Your task to perform on an android device: add a contact Image 0: 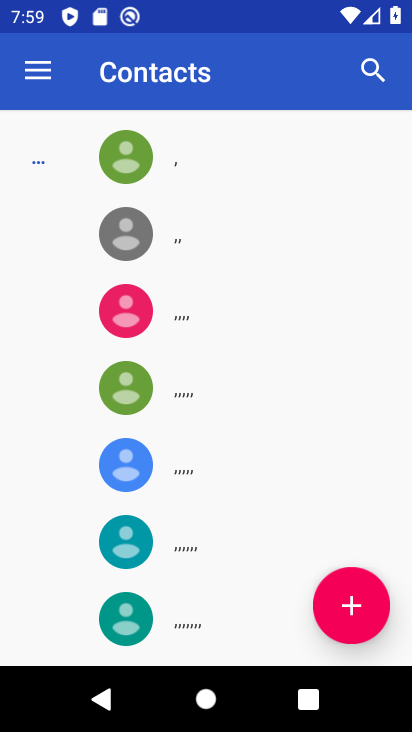
Step 0: press home button
Your task to perform on an android device: add a contact Image 1: 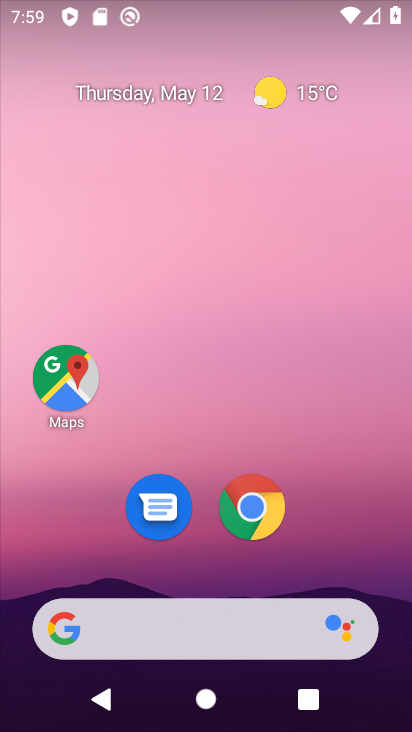
Step 1: drag from (264, 488) to (214, 66)
Your task to perform on an android device: add a contact Image 2: 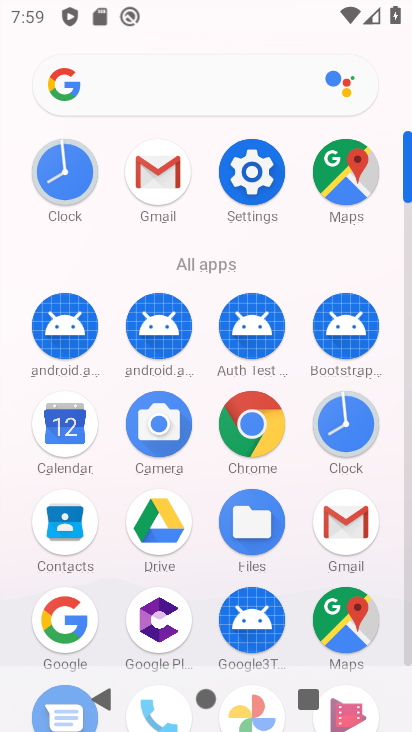
Step 2: click (49, 526)
Your task to perform on an android device: add a contact Image 3: 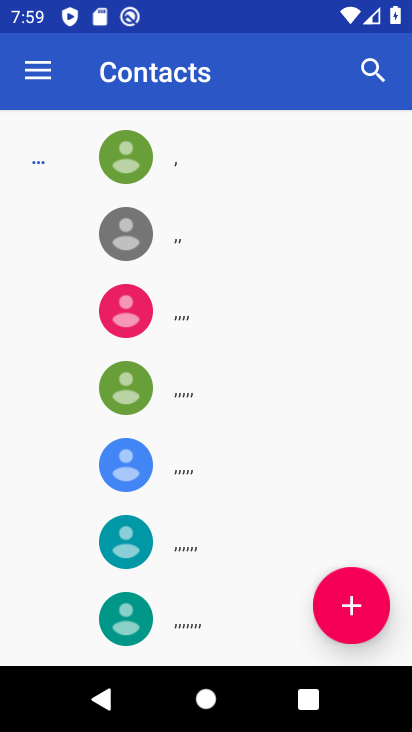
Step 3: click (350, 617)
Your task to perform on an android device: add a contact Image 4: 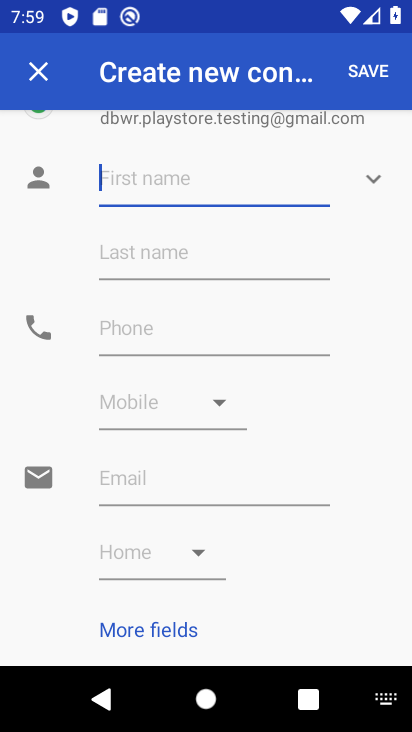
Step 4: type "nmjkluiop"
Your task to perform on an android device: add a contact Image 5: 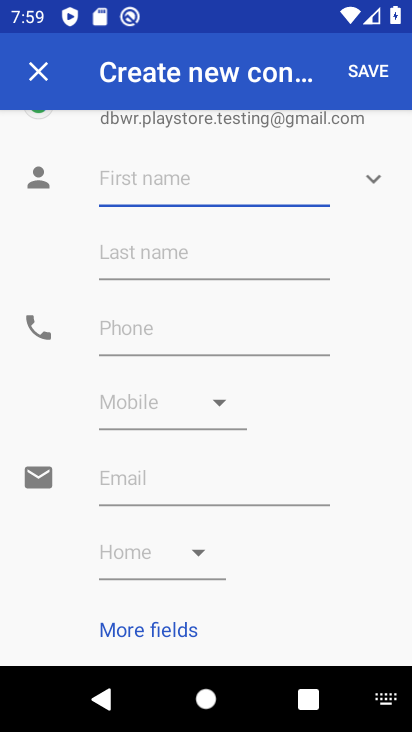
Step 5: click (151, 318)
Your task to perform on an android device: add a contact Image 6: 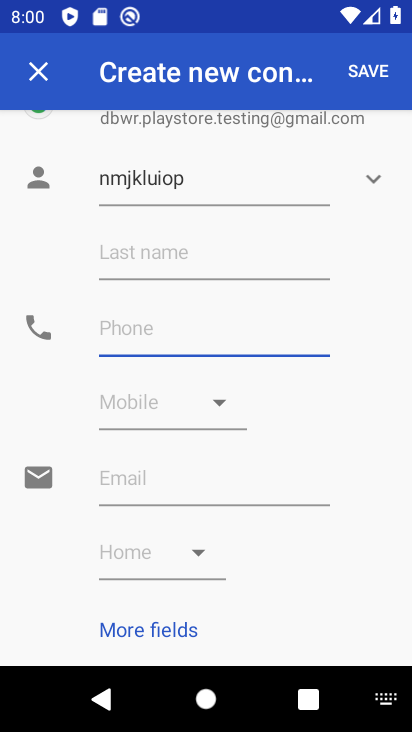
Step 6: type "6789098768"
Your task to perform on an android device: add a contact Image 7: 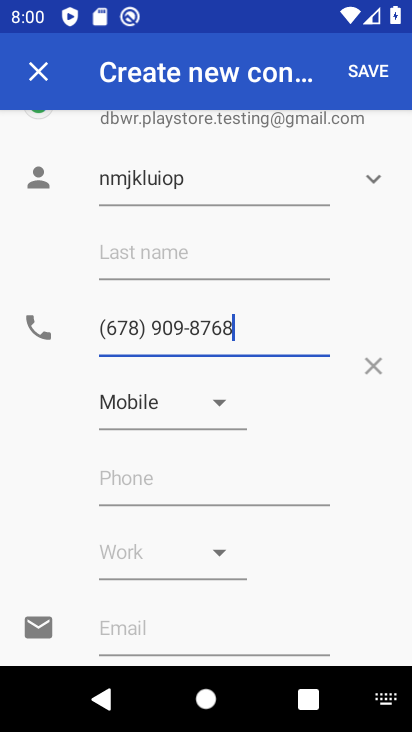
Step 7: click (361, 81)
Your task to perform on an android device: add a contact Image 8: 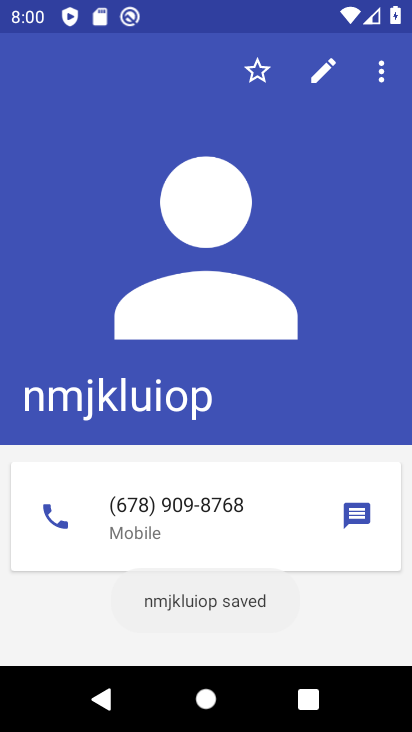
Step 8: task complete